Your task to perform on an android device: Open settings on Google Maps Image 0: 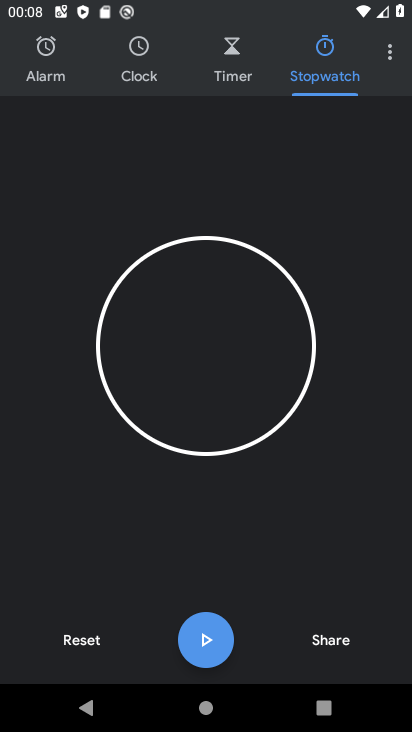
Step 0: press home button
Your task to perform on an android device: Open settings on Google Maps Image 1: 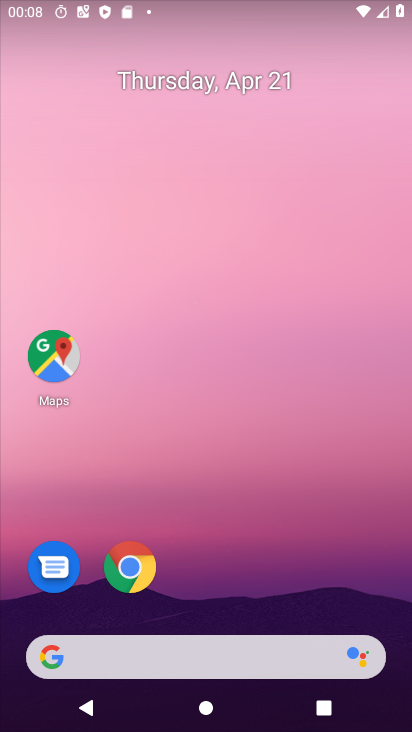
Step 1: drag from (230, 400) to (235, 313)
Your task to perform on an android device: Open settings on Google Maps Image 2: 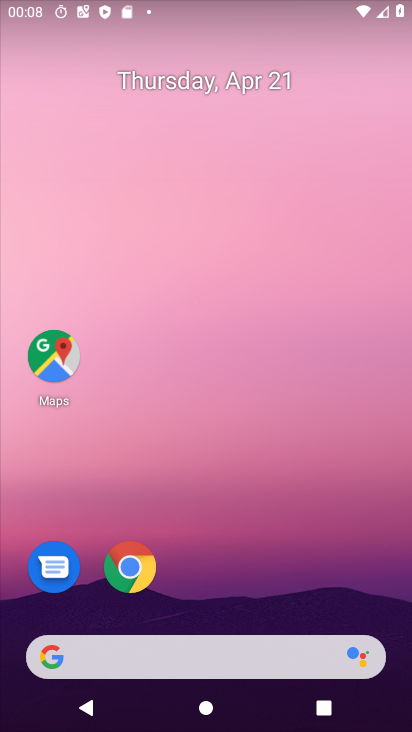
Step 2: drag from (217, 549) to (212, 219)
Your task to perform on an android device: Open settings on Google Maps Image 3: 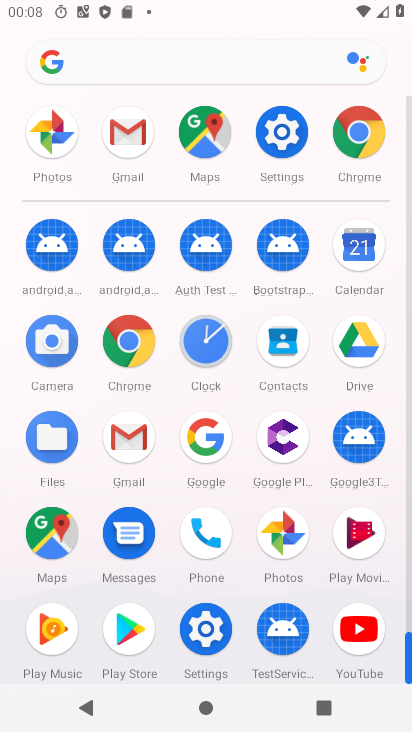
Step 3: click (53, 530)
Your task to perform on an android device: Open settings on Google Maps Image 4: 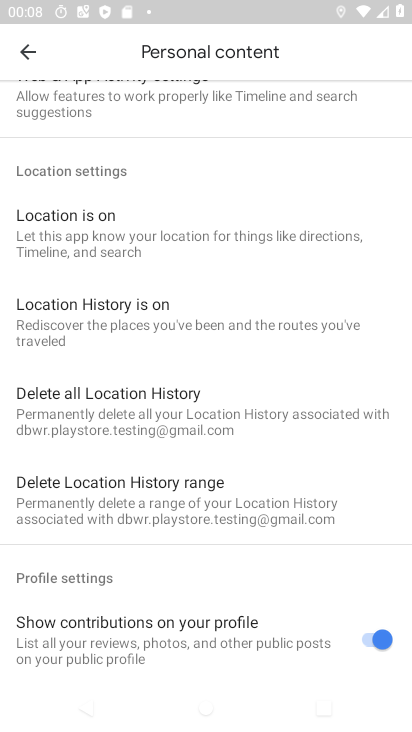
Step 4: click (20, 54)
Your task to perform on an android device: Open settings on Google Maps Image 5: 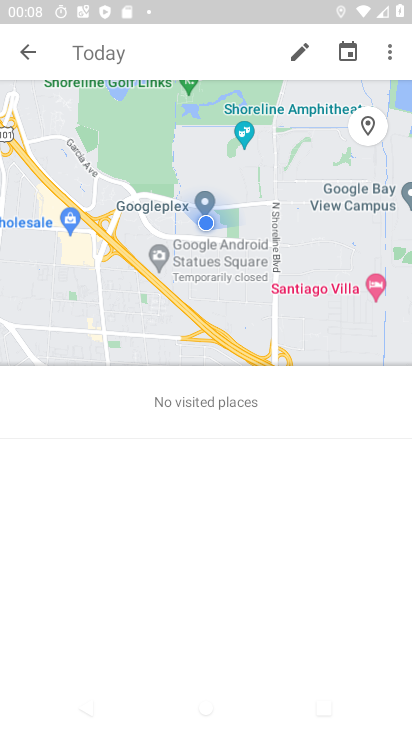
Step 5: click (31, 48)
Your task to perform on an android device: Open settings on Google Maps Image 6: 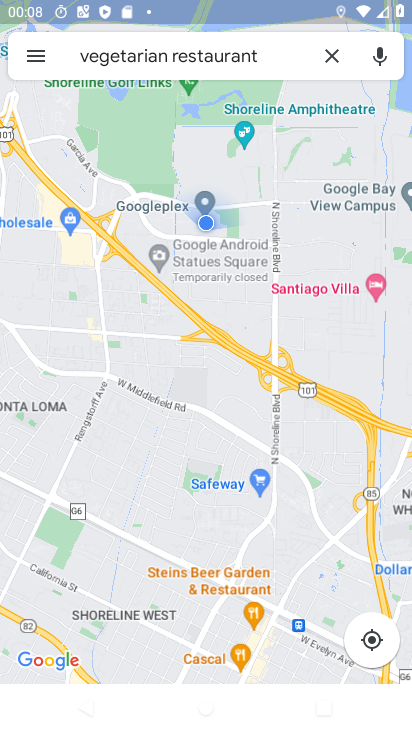
Step 6: click (16, 45)
Your task to perform on an android device: Open settings on Google Maps Image 7: 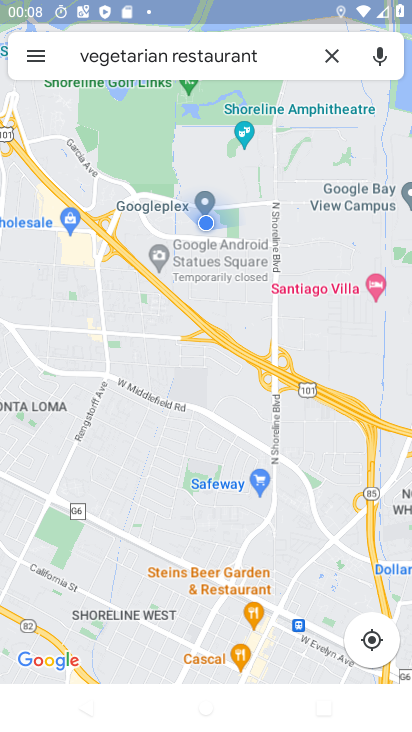
Step 7: click (31, 56)
Your task to perform on an android device: Open settings on Google Maps Image 8: 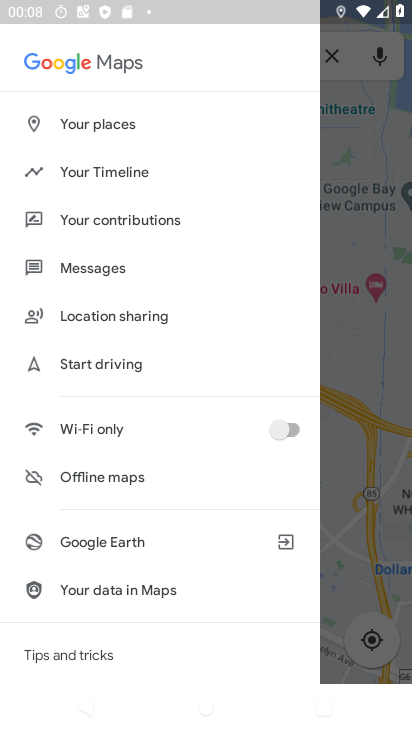
Step 8: drag from (133, 614) to (228, 182)
Your task to perform on an android device: Open settings on Google Maps Image 9: 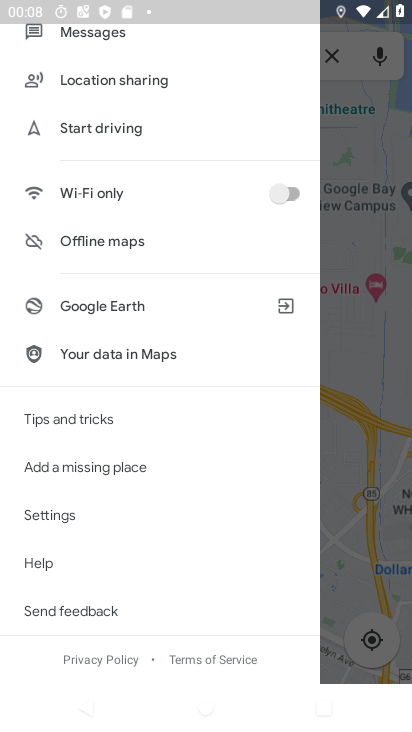
Step 9: click (61, 515)
Your task to perform on an android device: Open settings on Google Maps Image 10: 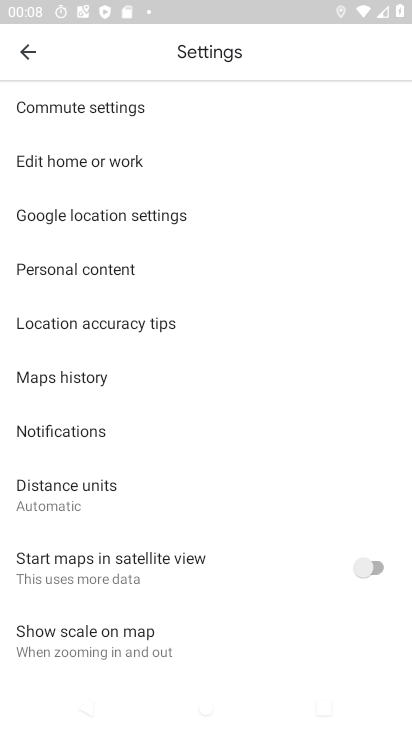
Step 10: drag from (168, 622) to (259, 121)
Your task to perform on an android device: Open settings on Google Maps Image 11: 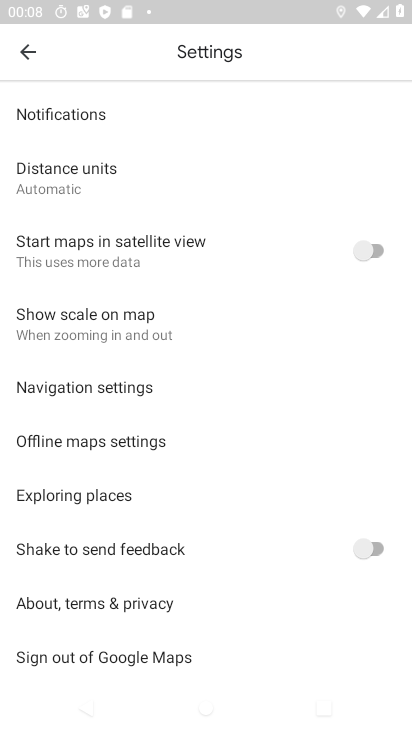
Step 11: click (197, 629)
Your task to perform on an android device: Open settings on Google Maps Image 12: 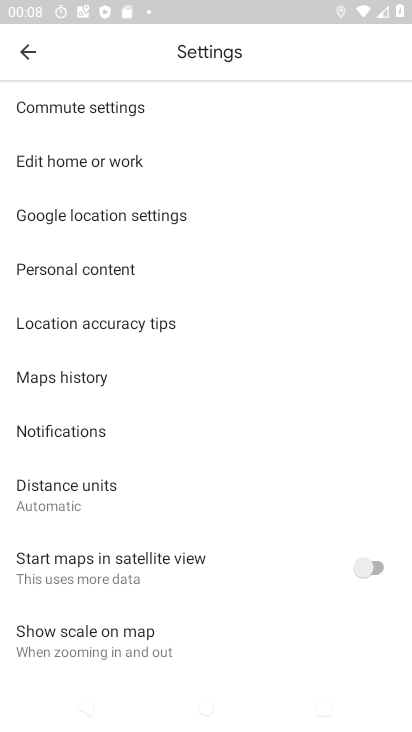
Step 12: drag from (174, 178) to (162, 502)
Your task to perform on an android device: Open settings on Google Maps Image 13: 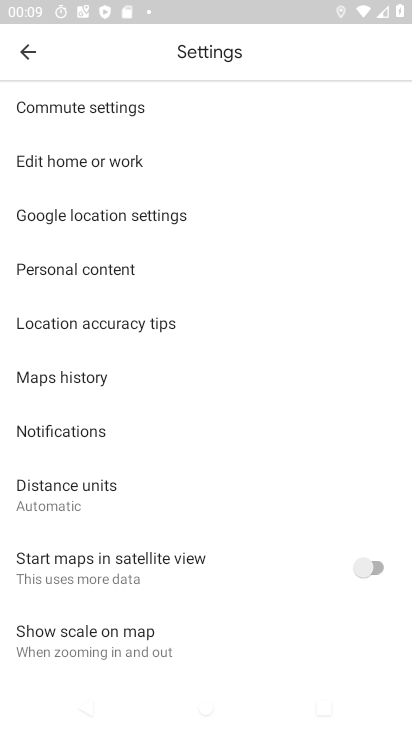
Step 13: drag from (189, 608) to (230, 687)
Your task to perform on an android device: Open settings on Google Maps Image 14: 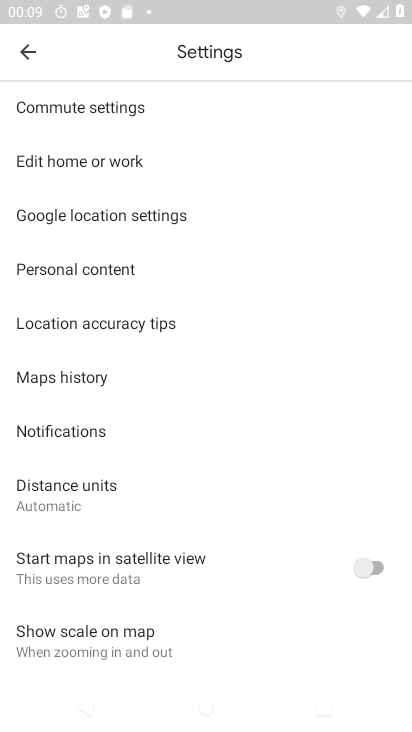
Step 14: click (221, 118)
Your task to perform on an android device: Open settings on Google Maps Image 15: 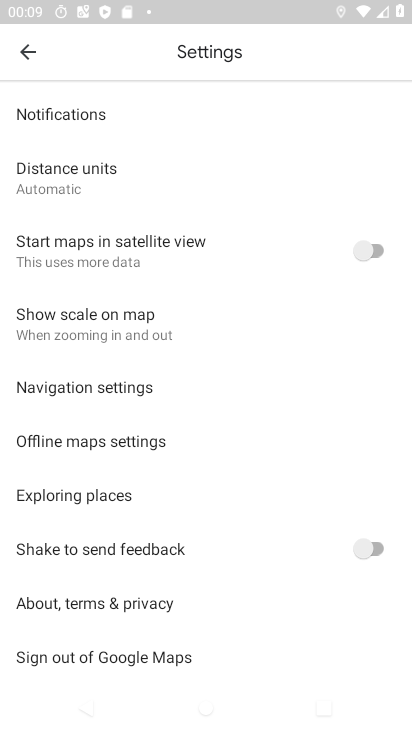
Step 15: task complete